Your task to perform on an android device: Go to privacy settings Image 0: 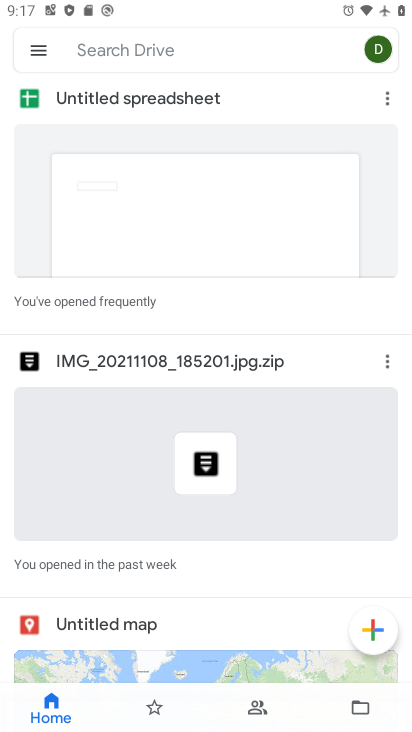
Step 0: press home button
Your task to perform on an android device: Go to privacy settings Image 1: 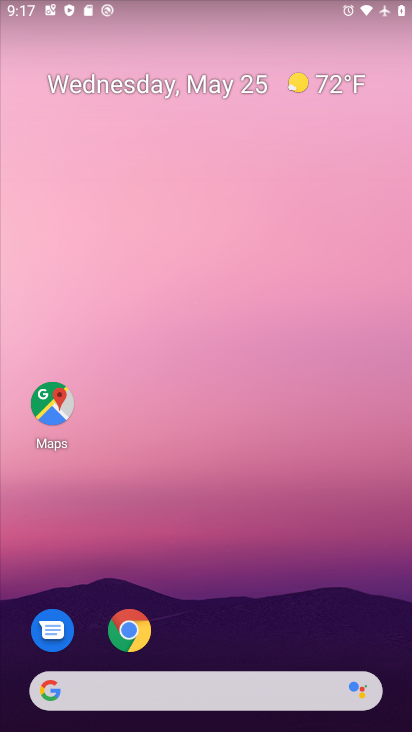
Step 1: drag from (201, 599) to (204, 128)
Your task to perform on an android device: Go to privacy settings Image 2: 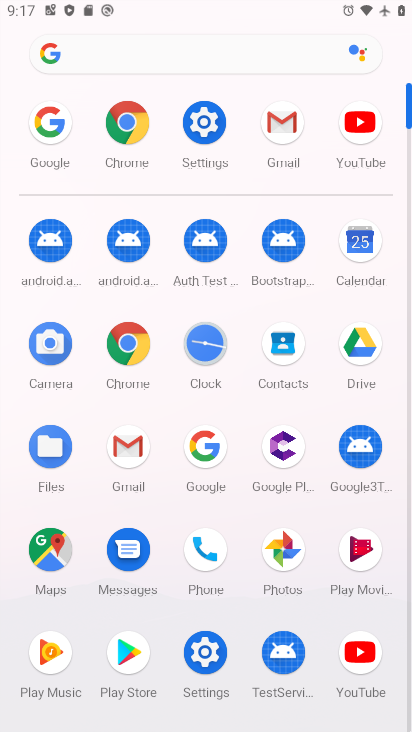
Step 2: click (204, 127)
Your task to perform on an android device: Go to privacy settings Image 3: 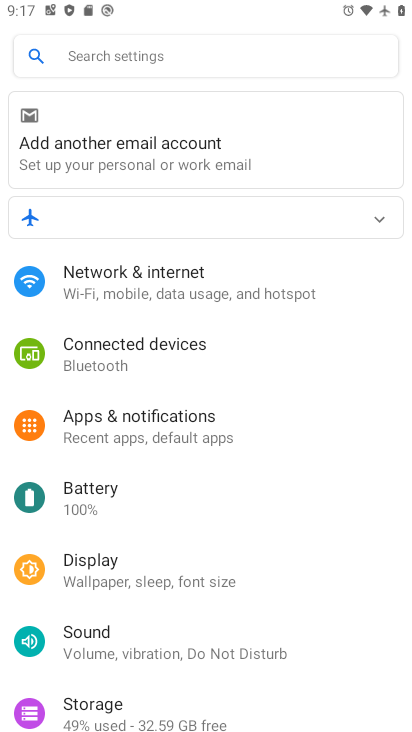
Step 3: drag from (156, 664) to (166, 374)
Your task to perform on an android device: Go to privacy settings Image 4: 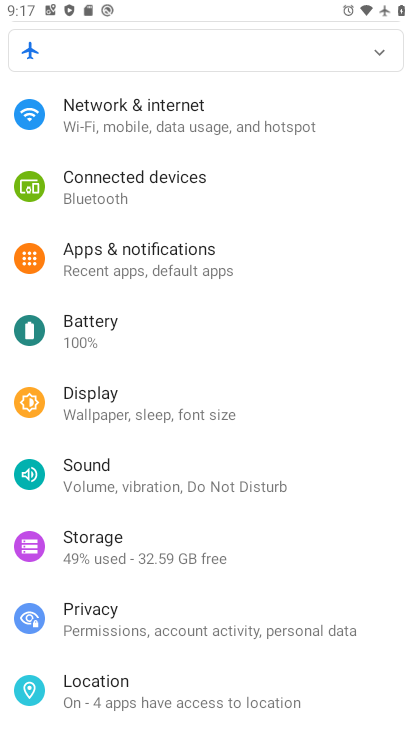
Step 4: click (161, 624)
Your task to perform on an android device: Go to privacy settings Image 5: 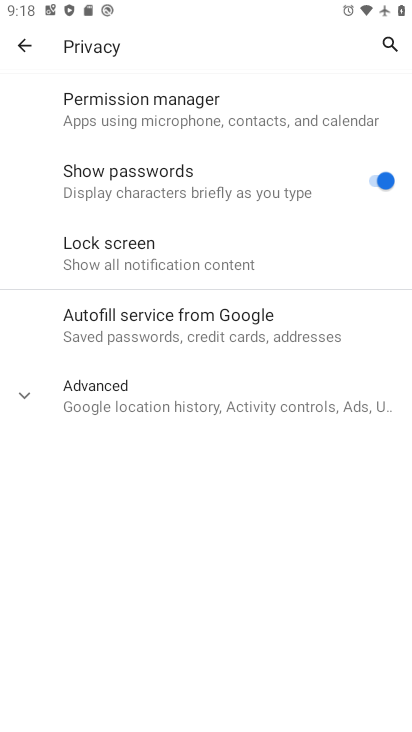
Step 5: task complete